Your task to perform on an android device: check data usage Image 0: 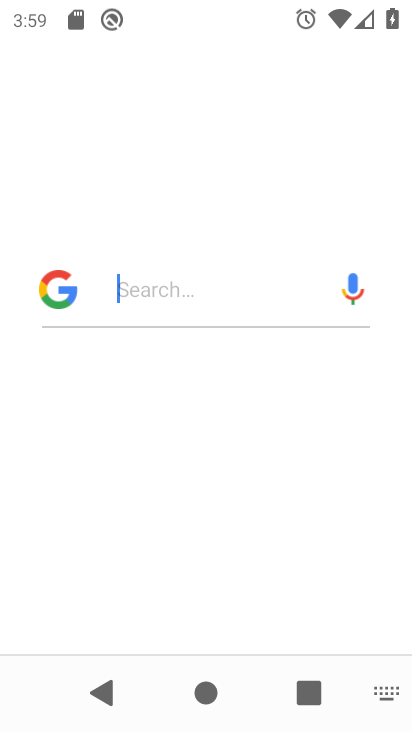
Step 0: drag from (215, 482) to (247, 159)
Your task to perform on an android device: check data usage Image 1: 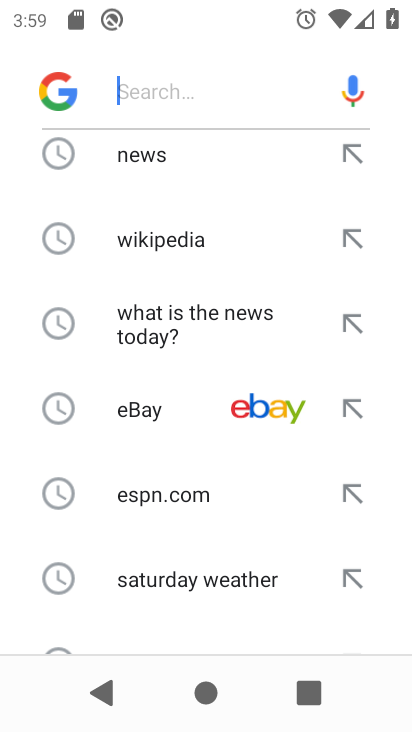
Step 1: press home button
Your task to perform on an android device: check data usage Image 2: 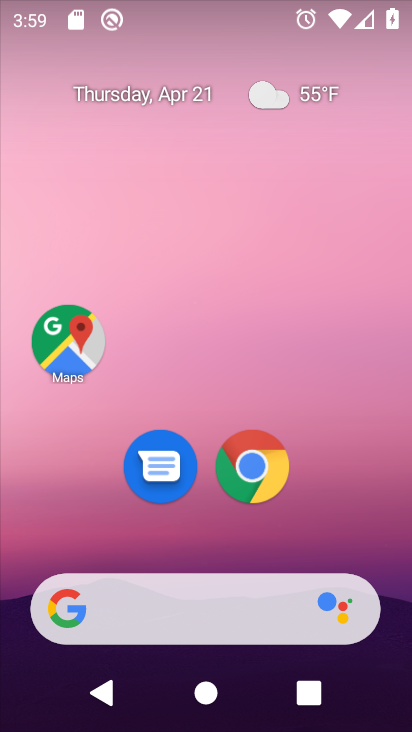
Step 2: drag from (254, 369) to (252, 176)
Your task to perform on an android device: check data usage Image 3: 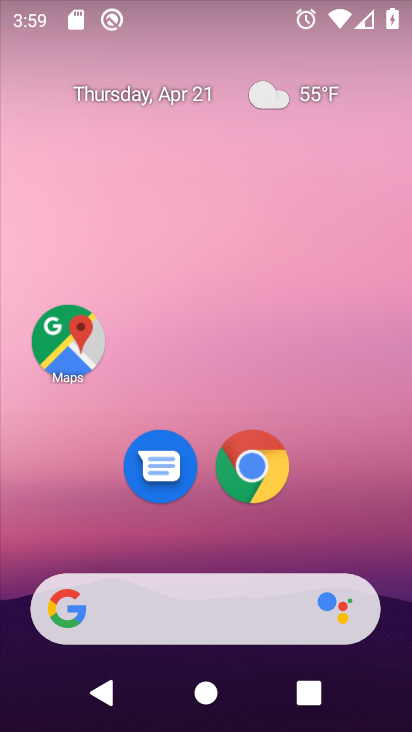
Step 3: drag from (221, 499) to (213, 117)
Your task to perform on an android device: check data usage Image 4: 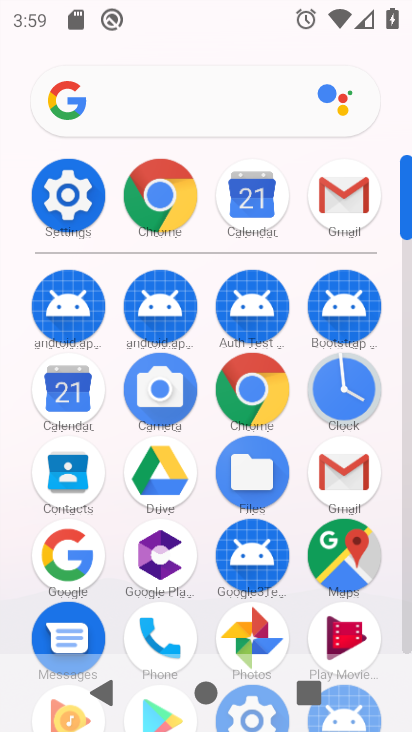
Step 4: click (70, 188)
Your task to perform on an android device: check data usage Image 5: 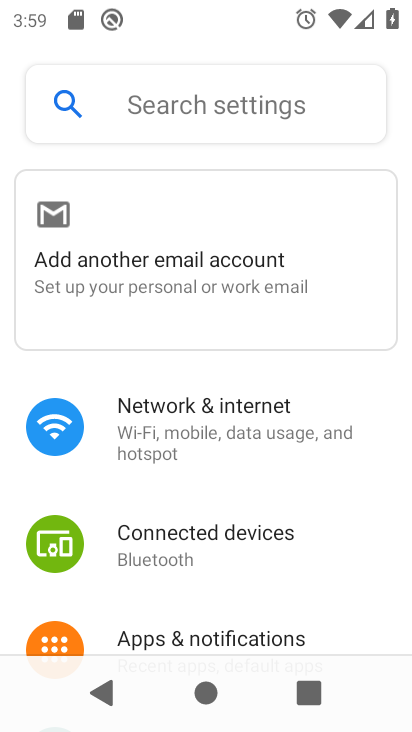
Step 5: click (226, 434)
Your task to perform on an android device: check data usage Image 6: 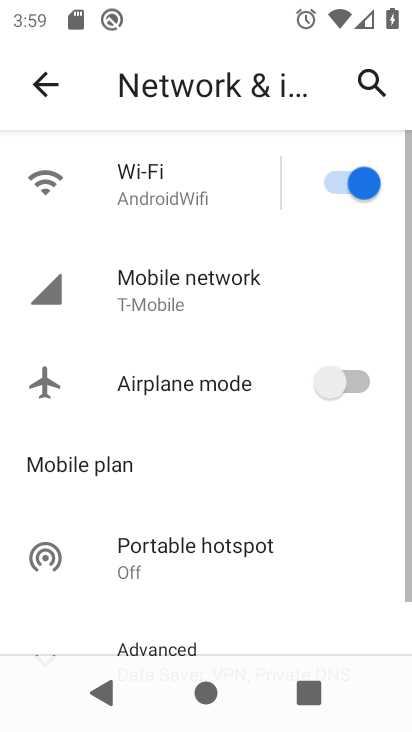
Step 6: click (182, 277)
Your task to perform on an android device: check data usage Image 7: 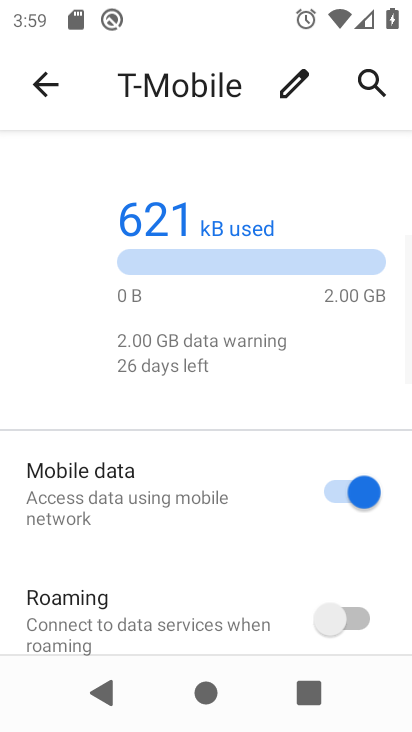
Step 7: drag from (193, 550) to (206, 81)
Your task to perform on an android device: check data usage Image 8: 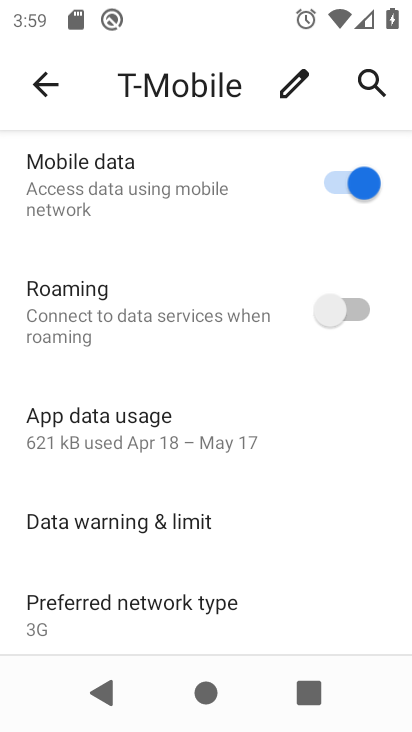
Step 8: drag from (160, 559) to (202, 139)
Your task to perform on an android device: check data usage Image 9: 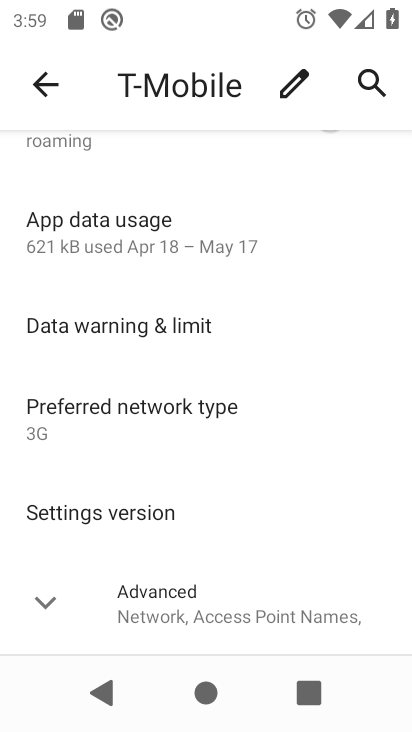
Step 9: click (199, 187)
Your task to perform on an android device: check data usage Image 10: 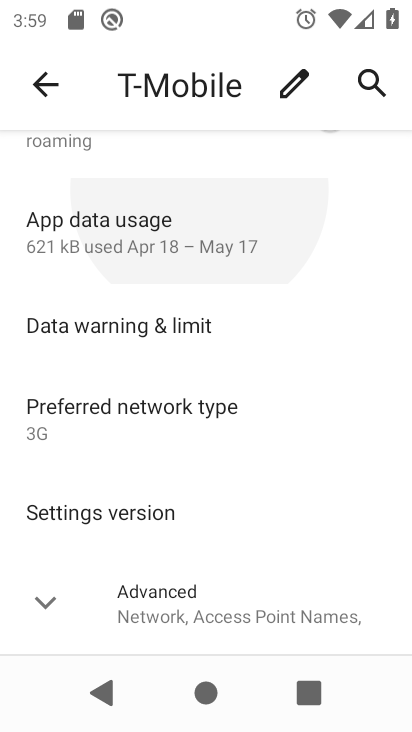
Step 10: click (174, 237)
Your task to perform on an android device: check data usage Image 11: 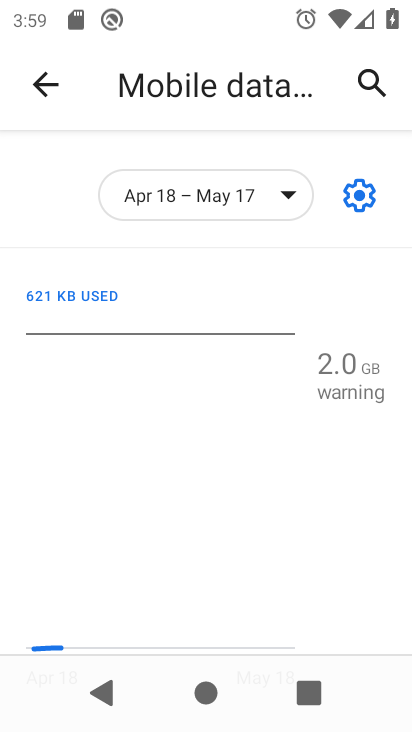
Step 11: task complete